Your task to perform on an android device: manage bookmarks in the chrome app Image 0: 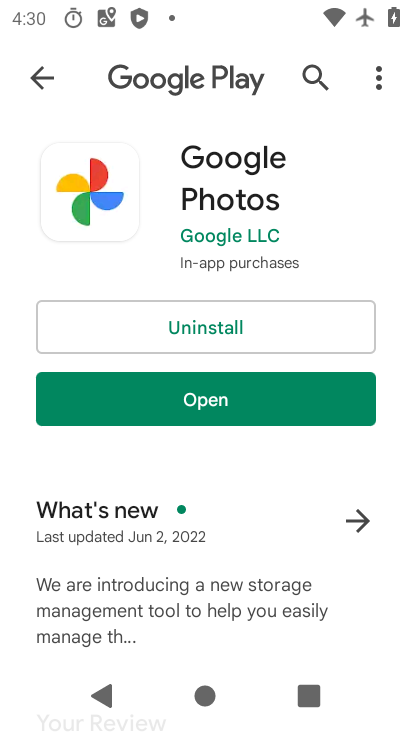
Step 0: press home button
Your task to perform on an android device: manage bookmarks in the chrome app Image 1: 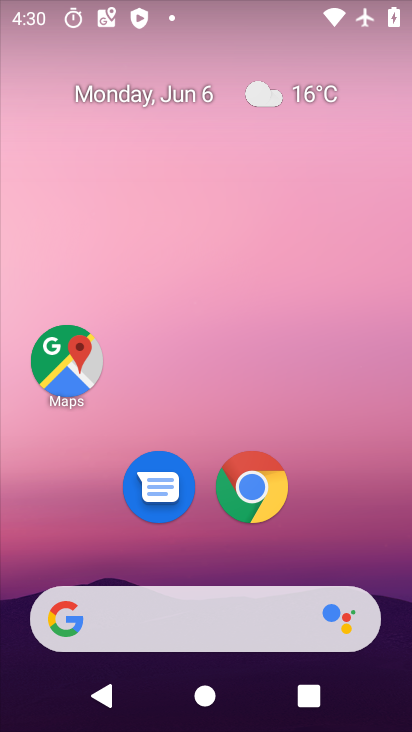
Step 1: click (249, 488)
Your task to perform on an android device: manage bookmarks in the chrome app Image 2: 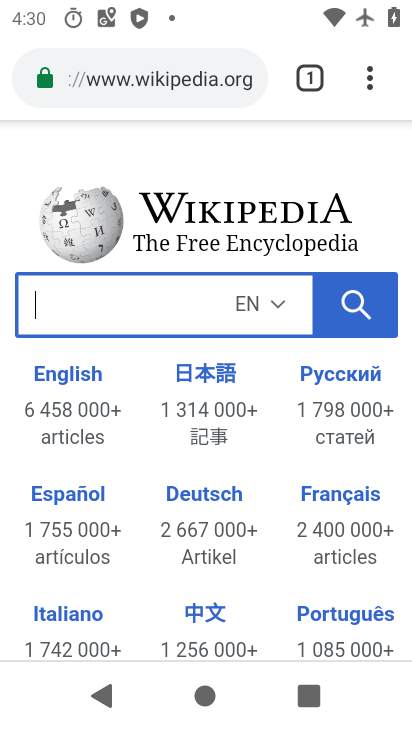
Step 2: drag from (372, 77) to (91, 311)
Your task to perform on an android device: manage bookmarks in the chrome app Image 3: 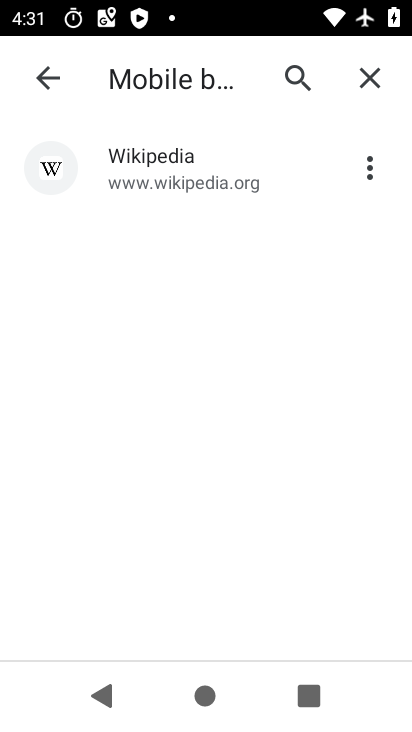
Step 3: click (365, 166)
Your task to perform on an android device: manage bookmarks in the chrome app Image 4: 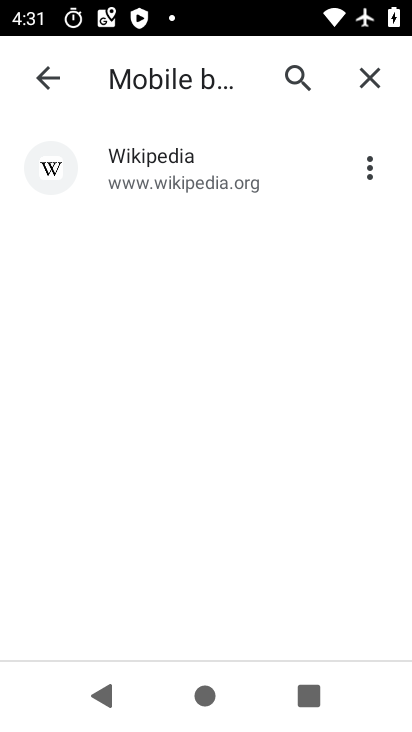
Step 4: click (372, 165)
Your task to perform on an android device: manage bookmarks in the chrome app Image 5: 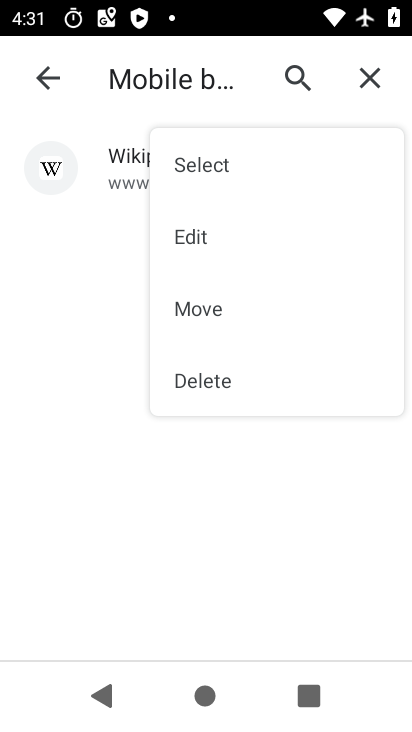
Step 5: click (232, 378)
Your task to perform on an android device: manage bookmarks in the chrome app Image 6: 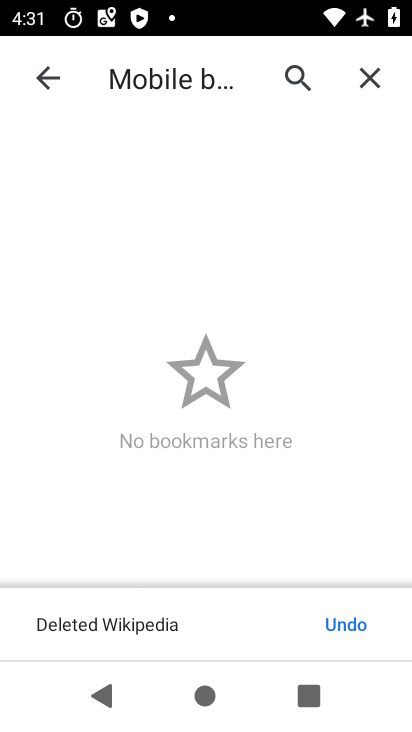
Step 6: task complete